Your task to perform on an android device: change the clock display to analog Image 0: 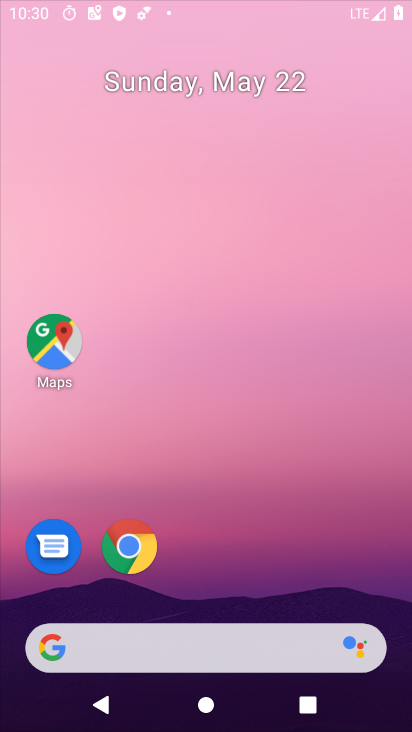
Step 0: click (102, 263)
Your task to perform on an android device: change the clock display to analog Image 1: 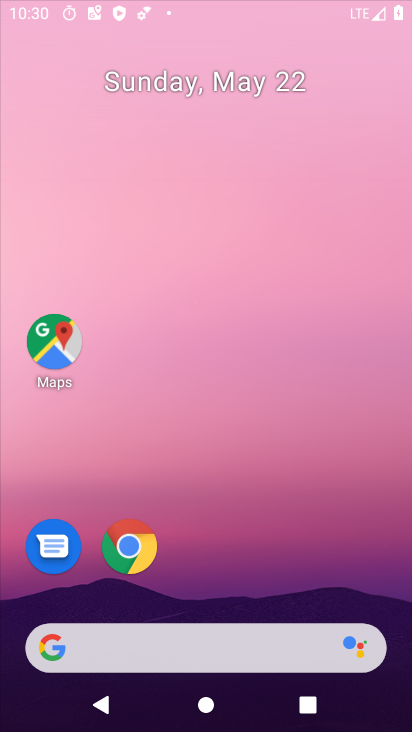
Step 1: drag from (213, 600) to (289, 0)
Your task to perform on an android device: change the clock display to analog Image 2: 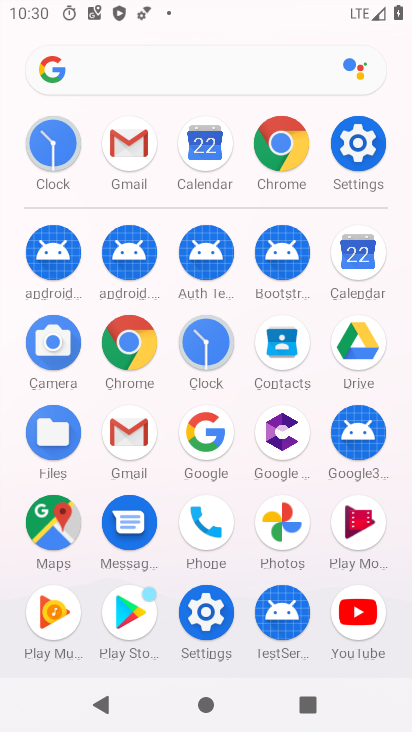
Step 2: click (198, 360)
Your task to perform on an android device: change the clock display to analog Image 3: 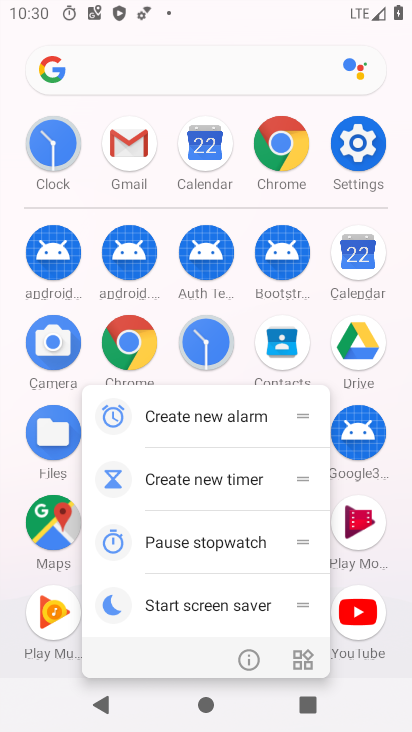
Step 3: click (259, 659)
Your task to perform on an android device: change the clock display to analog Image 4: 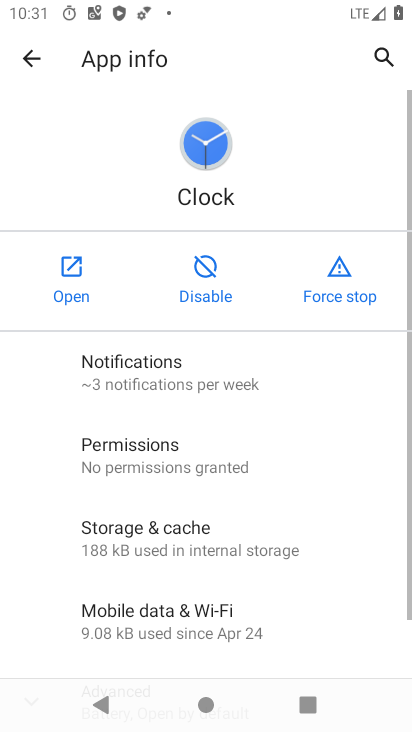
Step 4: click (86, 298)
Your task to perform on an android device: change the clock display to analog Image 5: 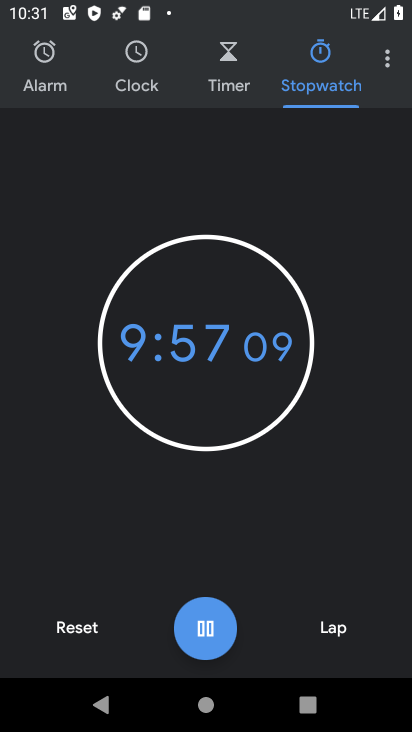
Step 5: click (388, 59)
Your task to perform on an android device: change the clock display to analog Image 6: 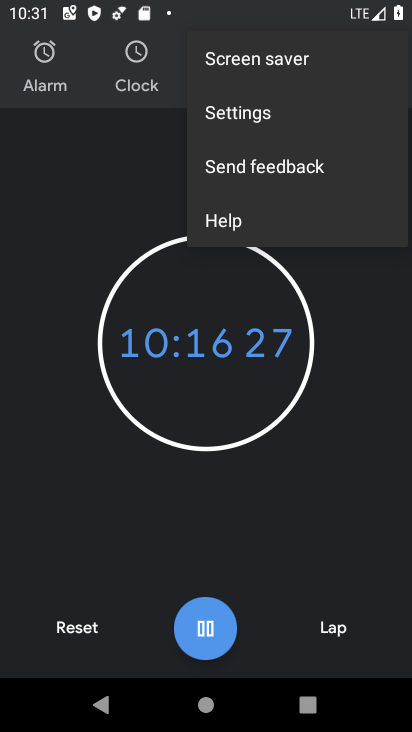
Step 6: click (69, 640)
Your task to perform on an android device: change the clock display to analog Image 7: 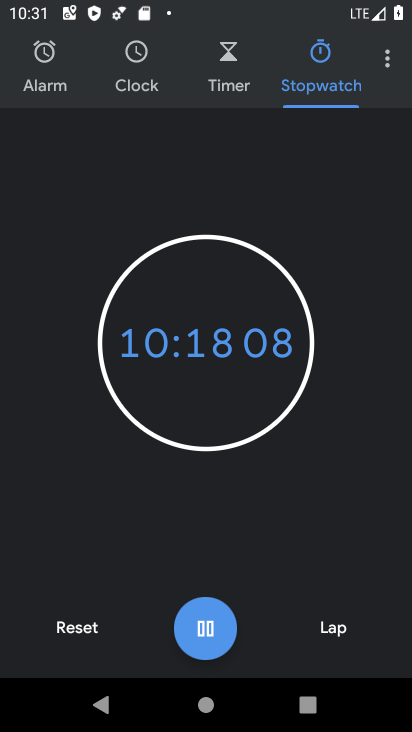
Step 7: click (82, 629)
Your task to perform on an android device: change the clock display to analog Image 8: 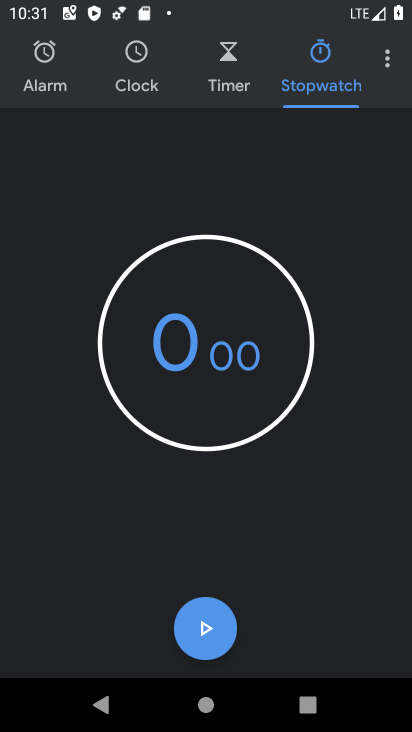
Step 8: click (385, 68)
Your task to perform on an android device: change the clock display to analog Image 9: 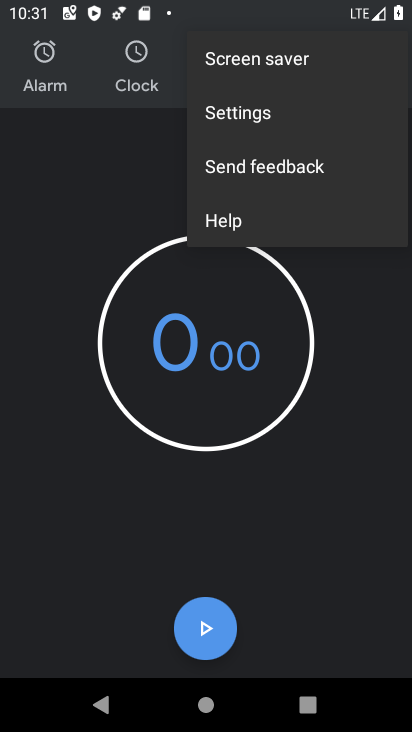
Step 9: click (256, 115)
Your task to perform on an android device: change the clock display to analog Image 10: 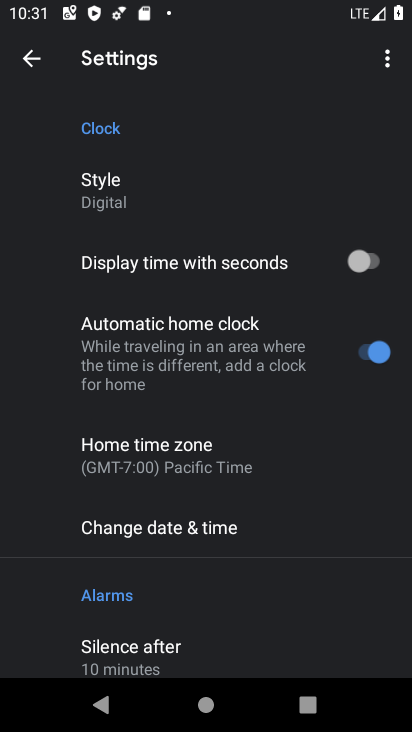
Step 10: click (121, 181)
Your task to perform on an android device: change the clock display to analog Image 11: 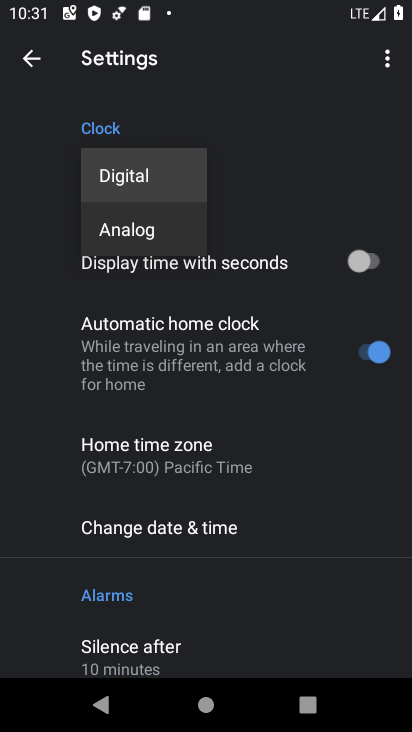
Step 11: click (131, 217)
Your task to perform on an android device: change the clock display to analog Image 12: 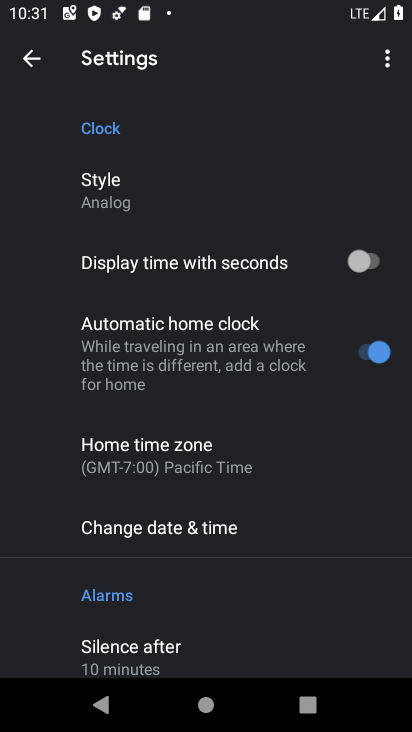
Step 12: task complete